Your task to perform on an android device: toggle translation in the chrome app Image 0: 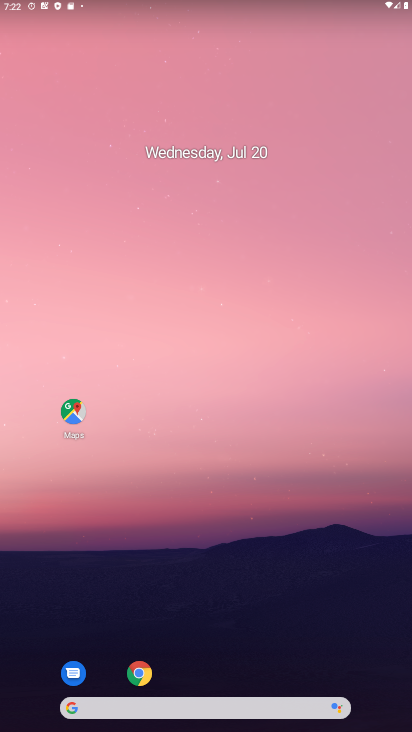
Step 0: drag from (364, 679) to (173, 5)
Your task to perform on an android device: toggle translation in the chrome app Image 1: 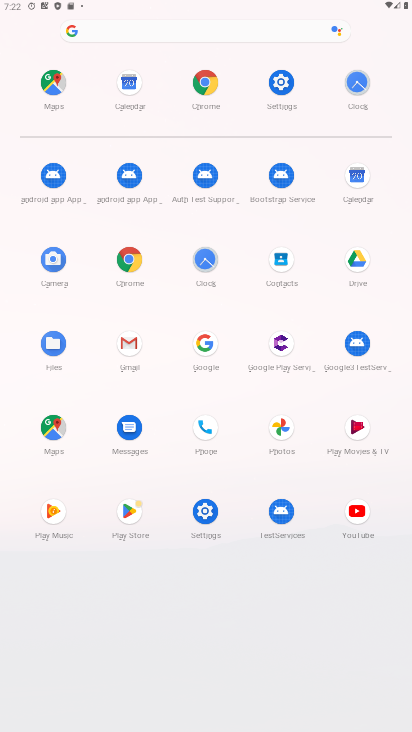
Step 1: click (123, 261)
Your task to perform on an android device: toggle translation in the chrome app Image 2: 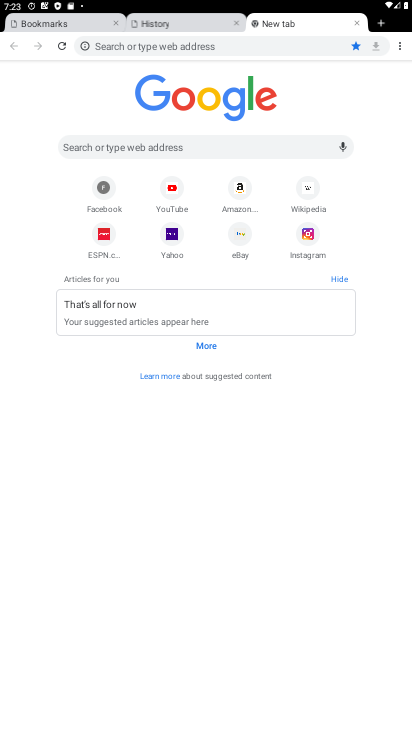
Step 2: click (398, 42)
Your task to perform on an android device: toggle translation in the chrome app Image 3: 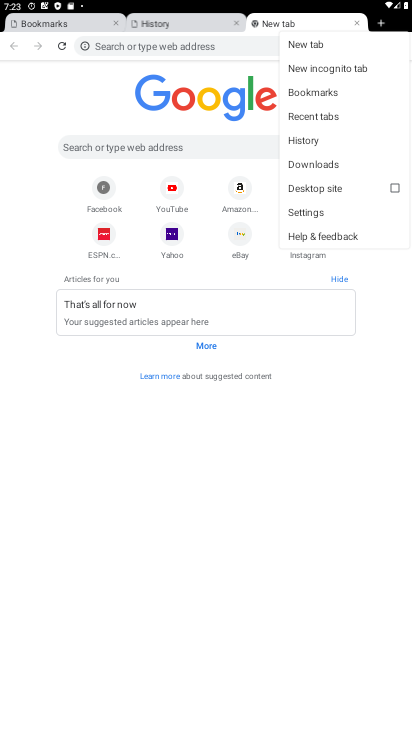
Step 3: click (306, 215)
Your task to perform on an android device: toggle translation in the chrome app Image 4: 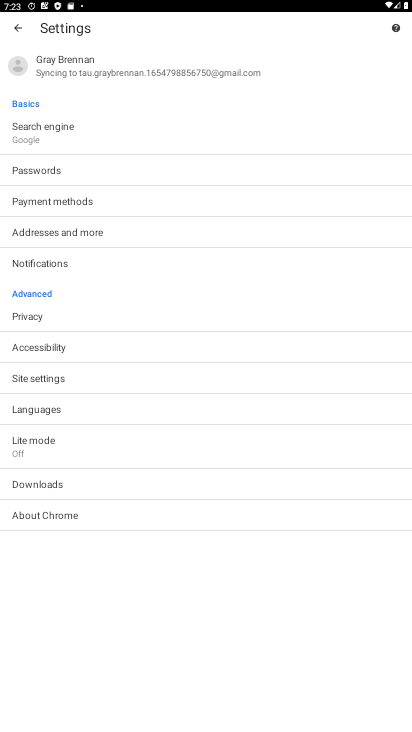
Step 4: click (67, 416)
Your task to perform on an android device: toggle translation in the chrome app Image 5: 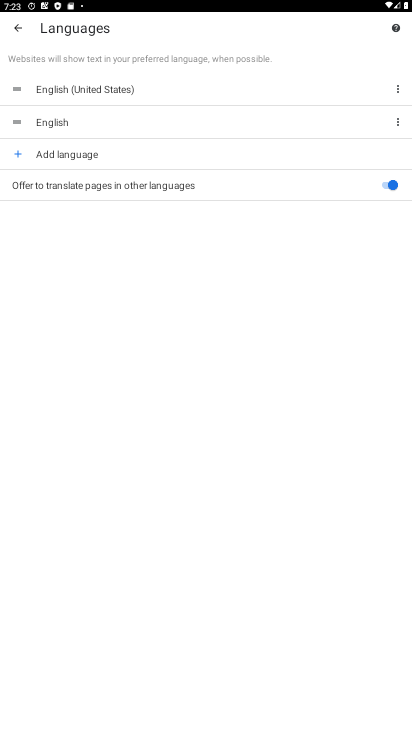
Step 5: click (351, 187)
Your task to perform on an android device: toggle translation in the chrome app Image 6: 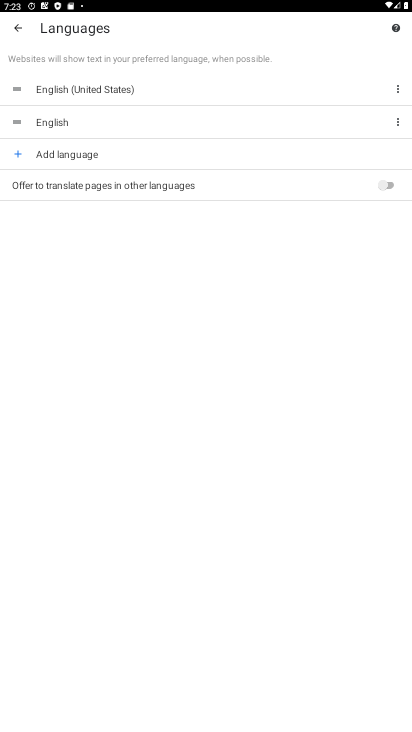
Step 6: task complete